Your task to perform on an android device: Is it going to rain this weekend? Image 0: 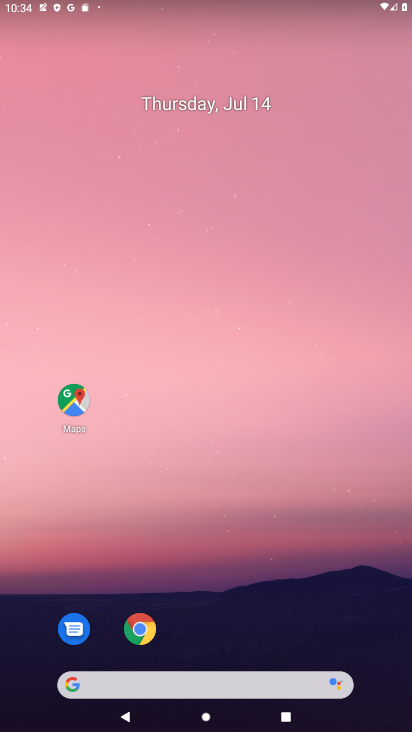
Step 0: click (101, 681)
Your task to perform on an android device: Is it going to rain this weekend? Image 1: 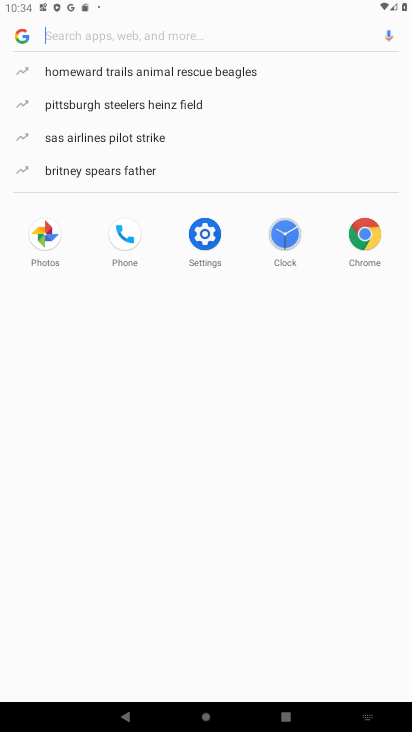
Step 1: click (130, 25)
Your task to perform on an android device: Is it going to rain this weekend? Image 2: 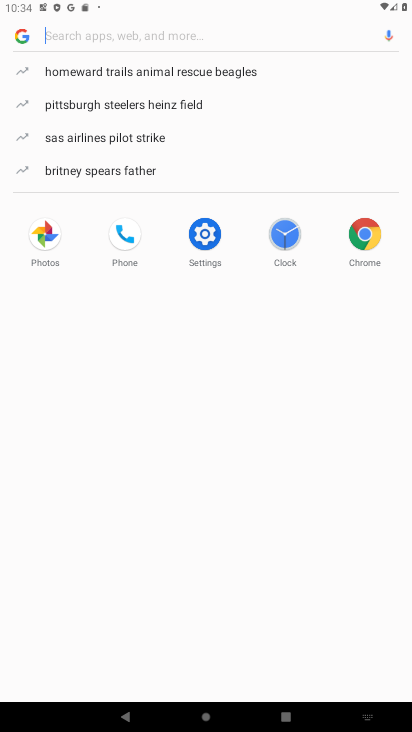
Step 2: type "weather today"
Your task to perform on an android device: Is it going to rain this weekend? Image 3: 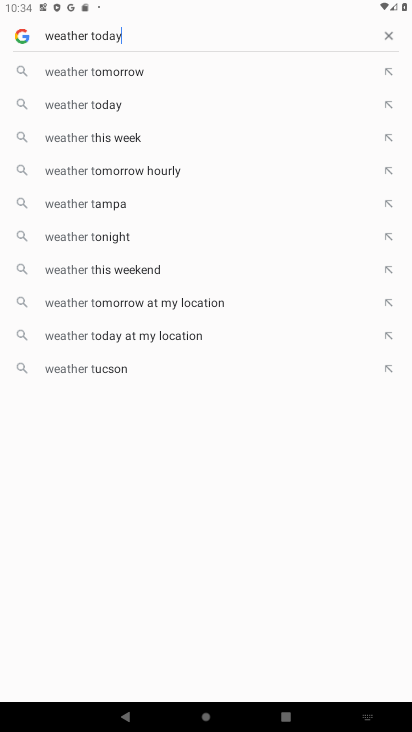
Step 3: type ""
Your task to perform on an android device: Is it going to rain this weekend? Image 4: 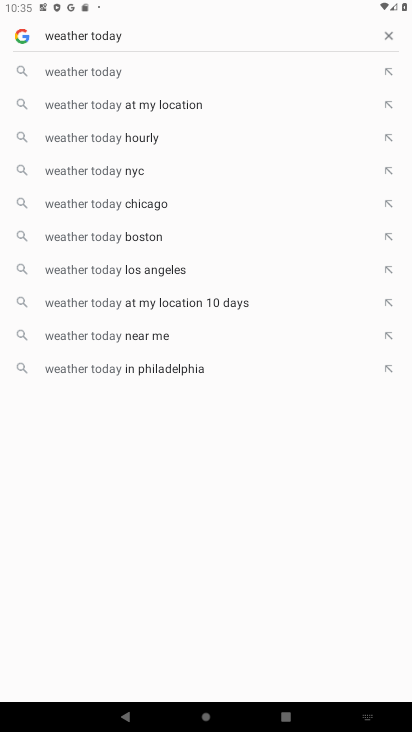
Step 4: click (95, 73)
Your task to perform on an android device: Is it going to rain this weekend? Image 5: 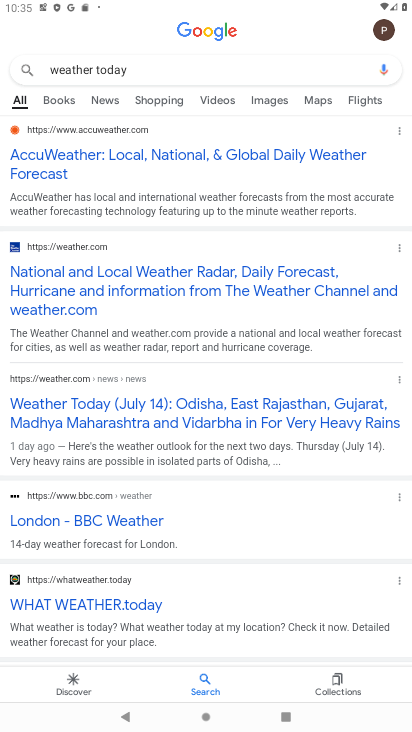
Step 5: click (49, 167)
Your task to perform on an android device: Is it going to rain this weekend? Image 6: 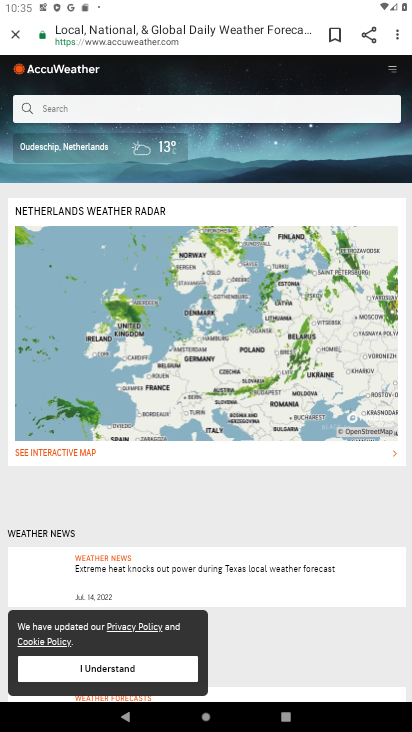
Step 6: task complete